Your task to perform on an android device: check the backup settings in the google photos Image 0: 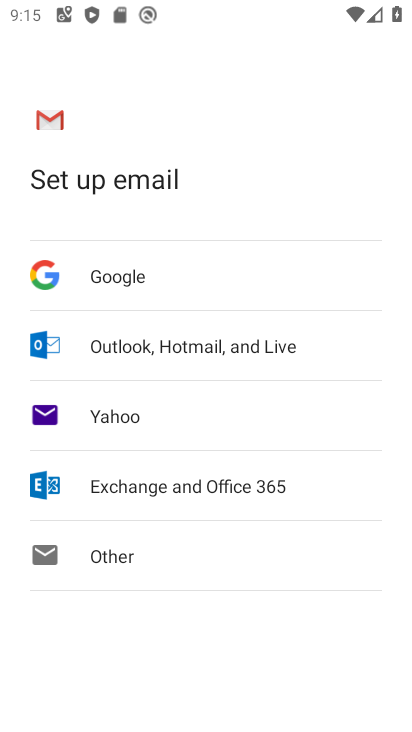
Step 0: press home button
Your task to perform on an android device: check the backup settings in the google photos Image 1: 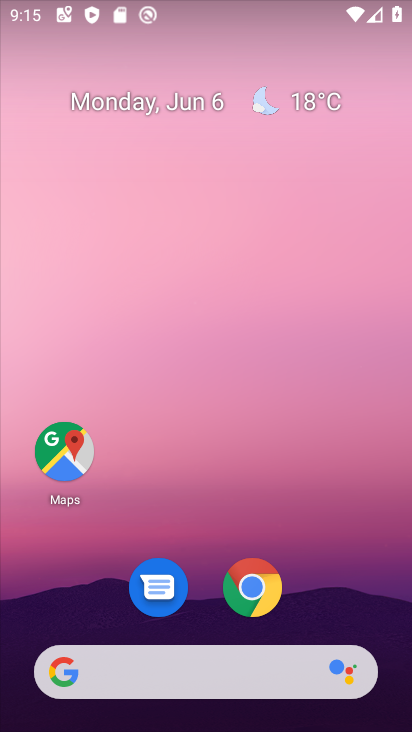
Step 1: drag from (239, 659) to (257, 232)
Your task to perform on an android device: check the backup settings in the google photos Image 2: 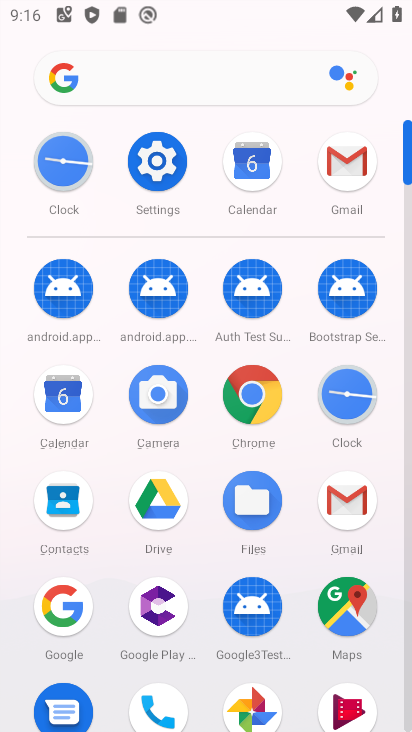
Step 2: click (260, 694)
Your task to perform on an android device: check the backup settings in the google photos Image 3: 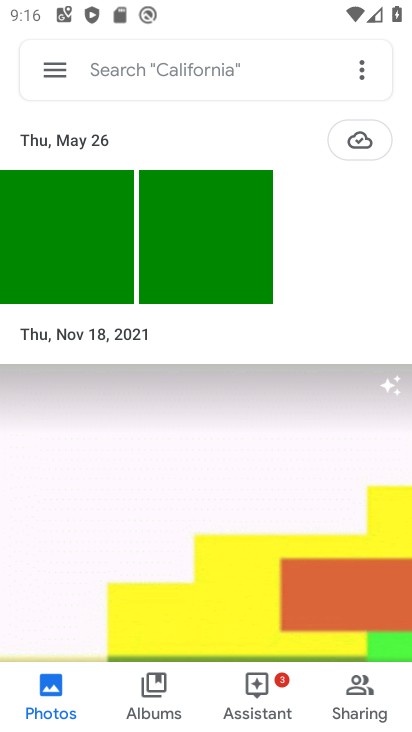
Step 3: click (53, 65)
Your task to perform on an android device: check the backup settings in the google photos Image 4: 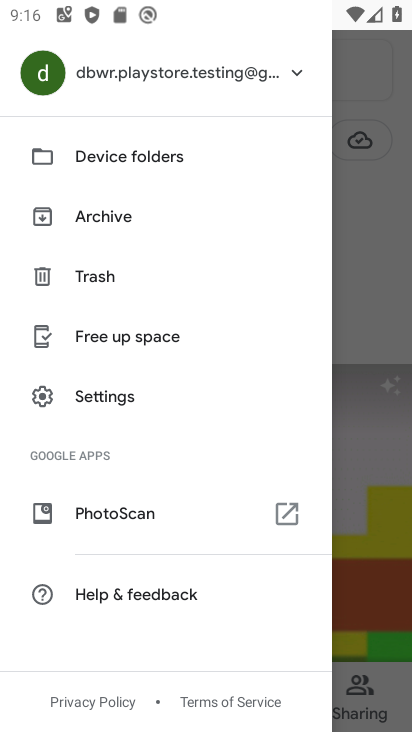
Step 4: click (123, 403)
Your task to perform on an android device: check the backup settings in the google photos Image 5: 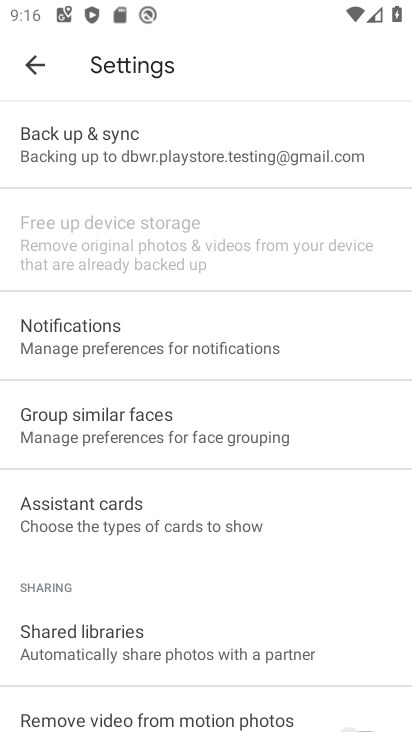
Step 5: click (143, 157)
Your task to perform on an android device: check the backup settings in the google photos Image 6: 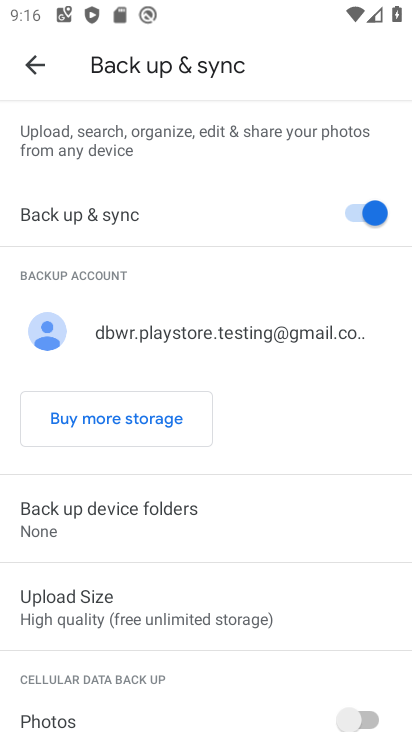
Step 6: task complete